Your task to perform on an android device: move a message to another label in the gmail app Image 0: 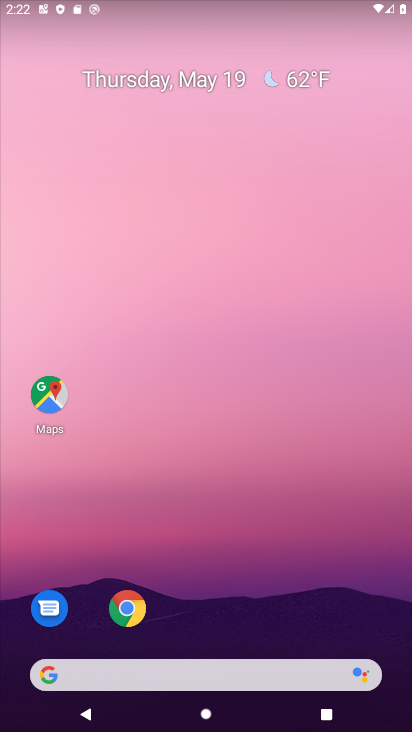
Step 0: drag from (308, 587) to (299, 20)
Your task to perform on an android device: move a message to another label in the gmail app Image 1: 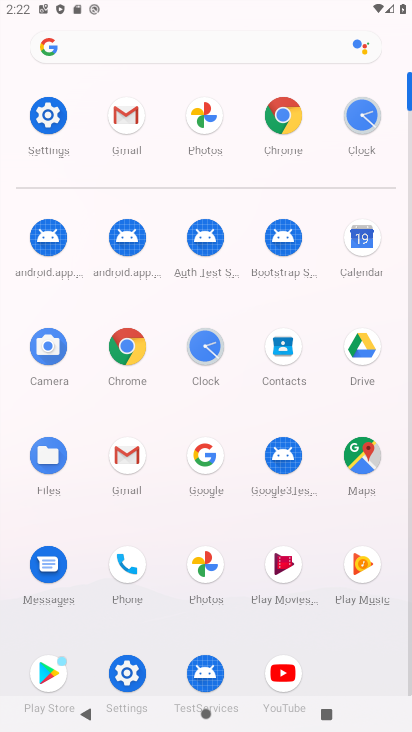
Step 1: click (115, 131)
Your task to perform on an android device: move a message to another label in the gmail app Image 2: 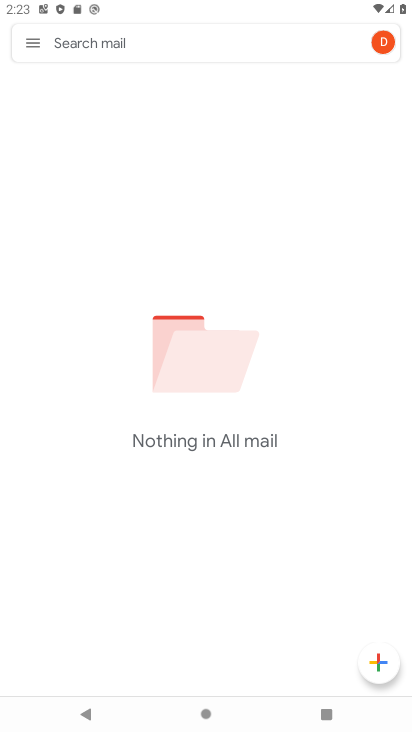
Step 2: click (33, 54)
Your task to perform on an android device: move a message to another label in the gmail app Image 3: 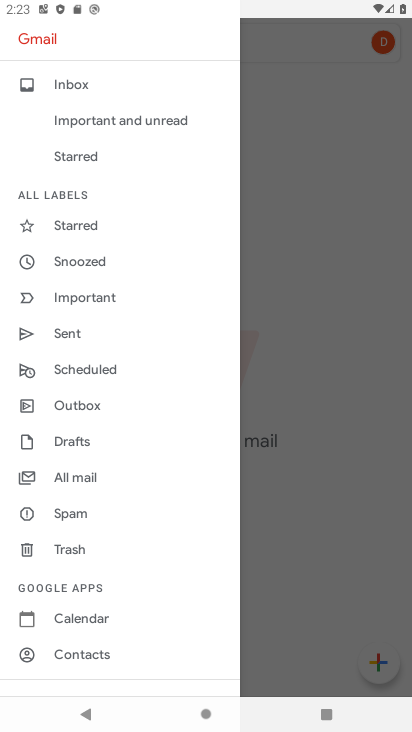
Step 3: click (102, 473)
Your task to perform on an android device: move a message to another label in the gmail app Image 4: 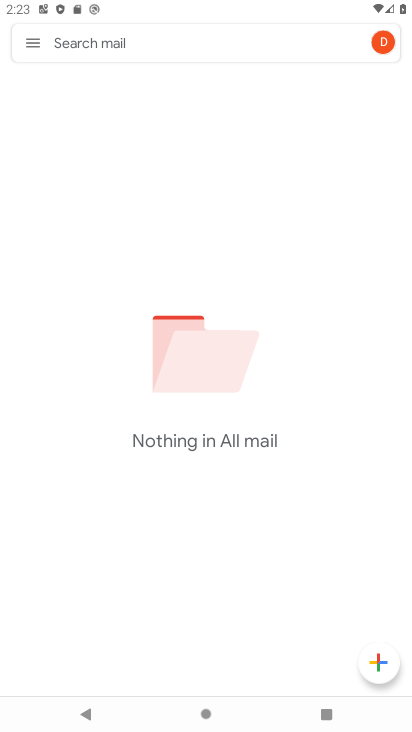
Step 4: task complete